Your task to perform on an android device: Open calendar and show me the second week of next month Image 0: 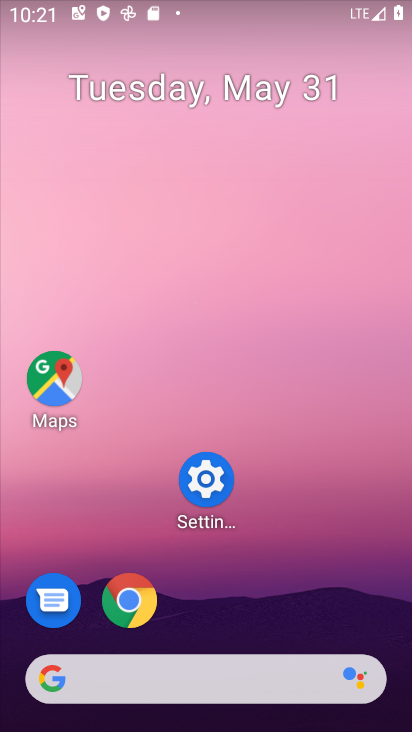
Step 0: press home button
Your task to perform on an android device: Open calendar and show me the second week of next month Image 1: 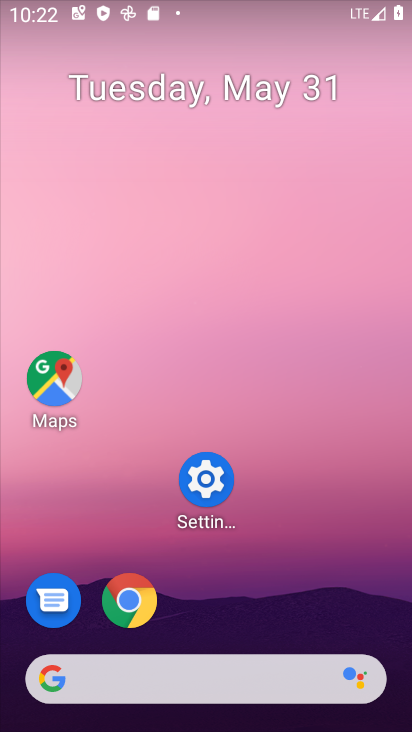
Step 1: drag from (282, 706) to (285, 232)
Your task to perform on an android device: Open calendar and show me the second week of next month Image 2: 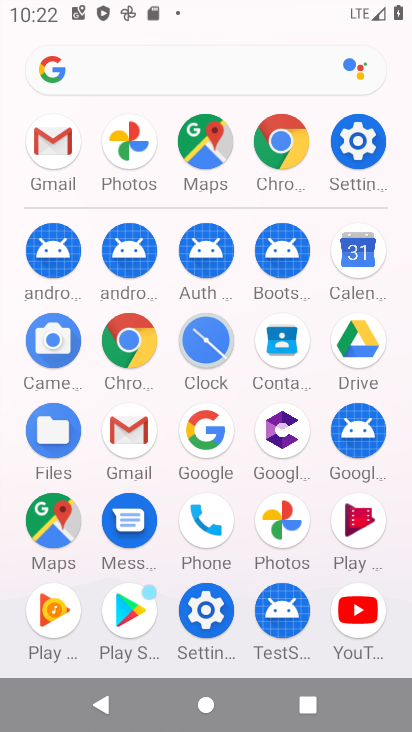
Step 2: click (348, 268)
Your task to perform on an android device: Open calendar and show me the second week of next month Image 3: 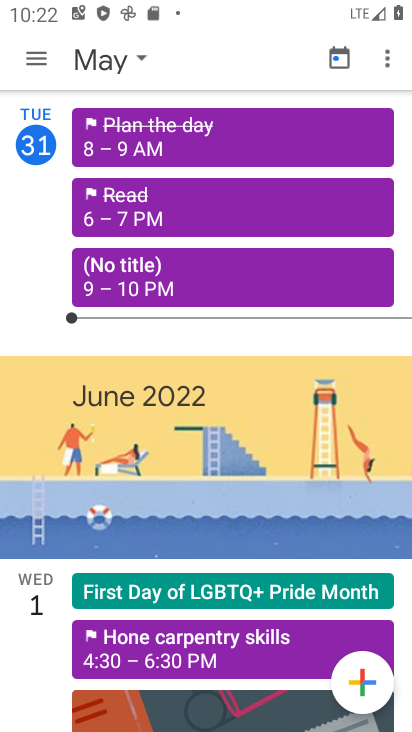
Step 3: click (24, 57)
Your task to perform on an android device: Open calendar and show me the second week of next month Image 4: 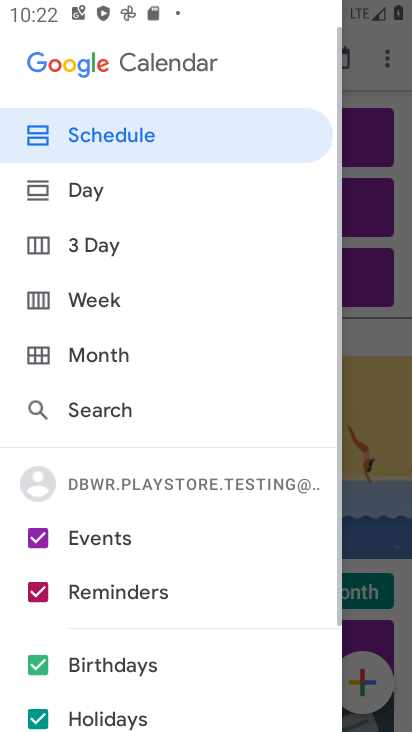
Step 4: click (98, 352)
Your task to perform on an android device: Open calendar and show me the second week of next month Image 5: 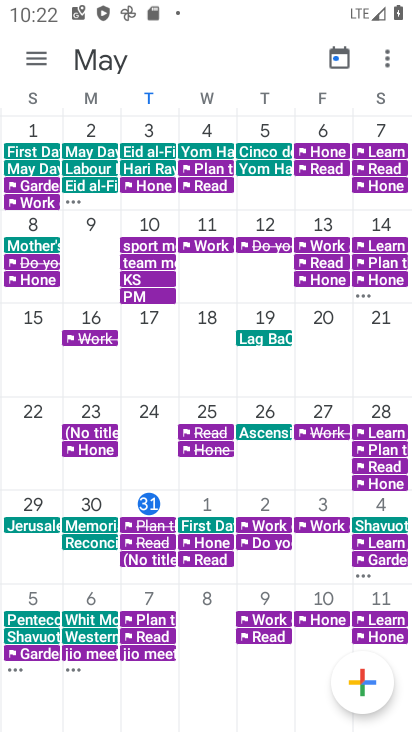
Step 5: drag from (366, 398) to (30, 471)
Your task to perform on an android device: Open calendar and show me the second week of next month Image 6: 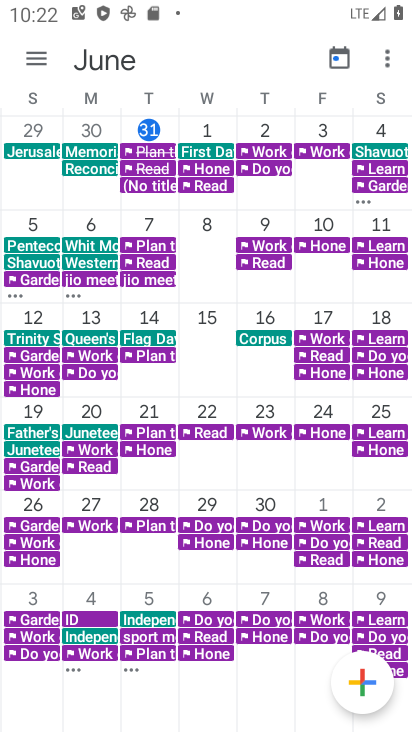
Step 6: click (92, 309)
Your task to perform on an android device: Open calendar and show me the second week of next month Image 7: 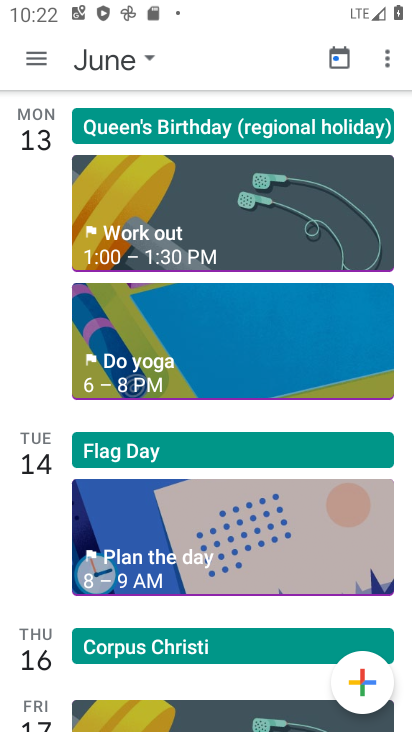
Step 7: task complete